Your task to perform on an android device: turn off javascript in the chrome app Image 0: 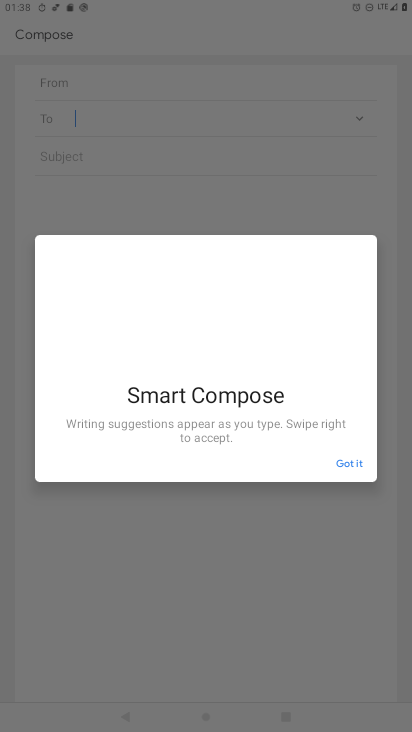
Step 0: click (134, 632)
Your task to perform on an android device: turn off javascript in the chrome app Image 1: 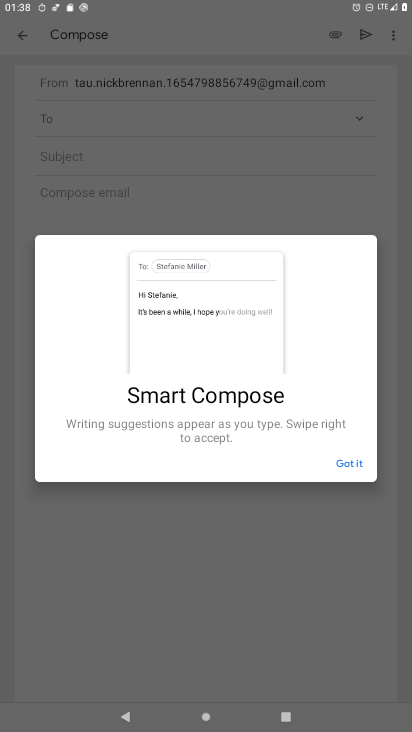
Step 1: press home button
Your task to perform on an android device: turn off javascript in the chrome app Image 2: 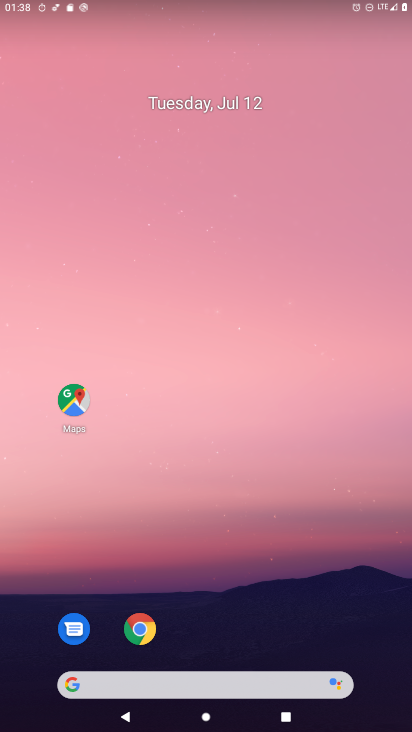
Step 2: click (131, 620)
Your task to perform on an android device: turn off javascript in the chrome app Image 3: 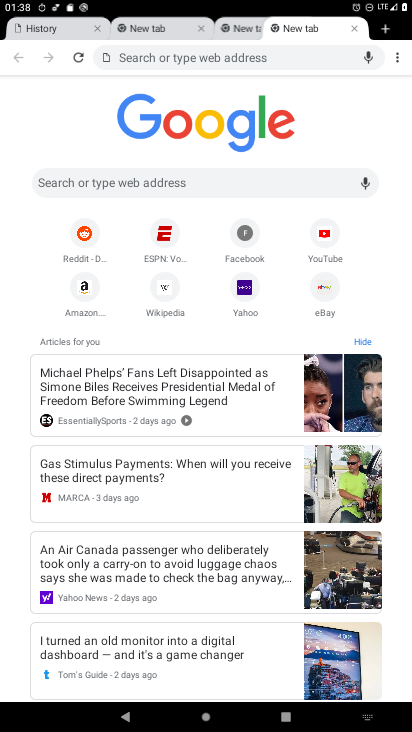
Step 3: click (397, 57)
Your task to perform on an android device: turn off javascript in the chrome app Image 4: 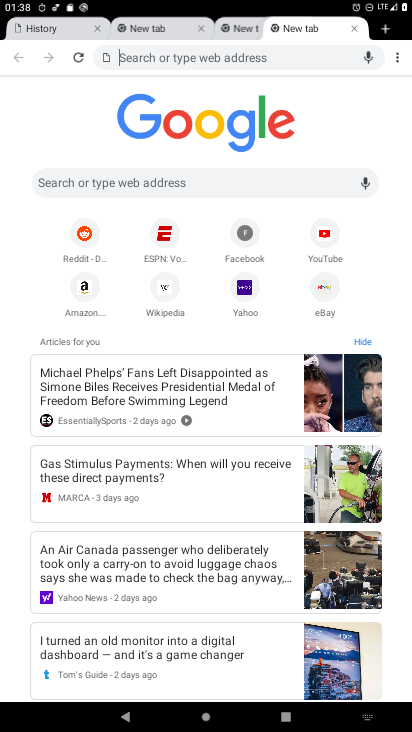
Step 4: click (395, 57)
Your task to perform on an android device: turn off javascript in the chrome app Image 5: 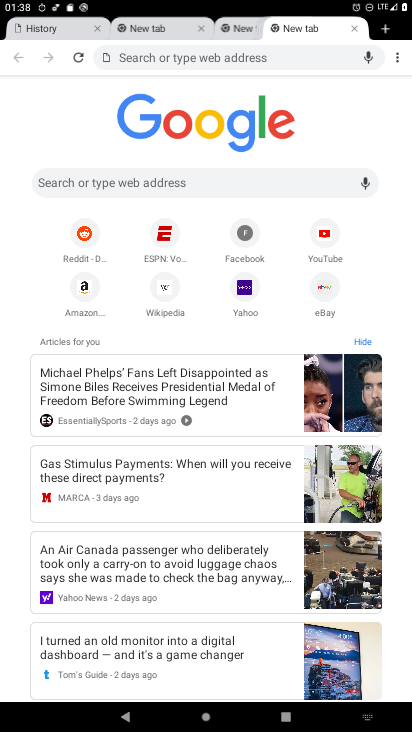
Step 5: click (398, 58)
Your task to perform on an android device: turn off javascript in the chrome app Image 6: 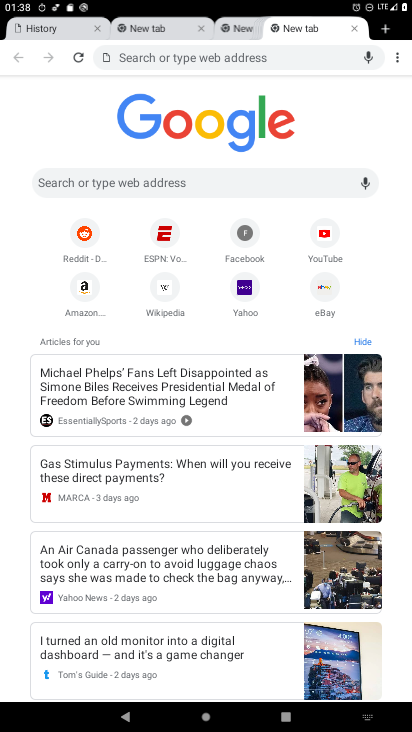
Step 6: click (395, 55)
Your task to perform on an android device: turn off javascript in the chrome app Image 7: 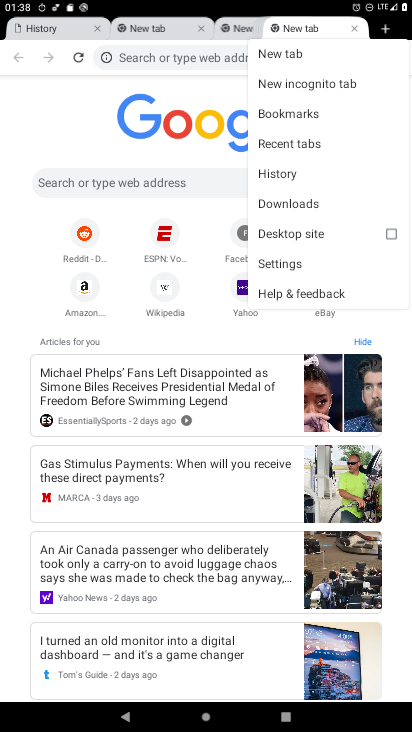
Step 7: click (280, 266)
Your task to perform on an android device: turn off javascript in the chrome app Image 8: 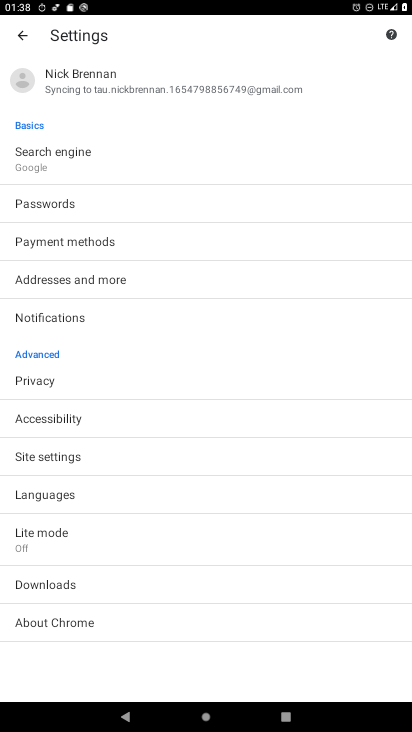
Step 8: click (44, 456)
Your task to perform on an android device: turn off javascript in the chrome app Image 9: 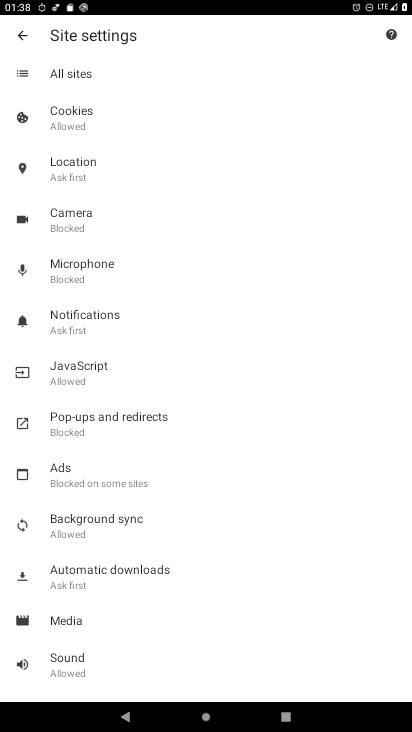
Step 9: click (76, 369)
Your task to perform on an android device: turn off javascript in the chrome app Image 10: 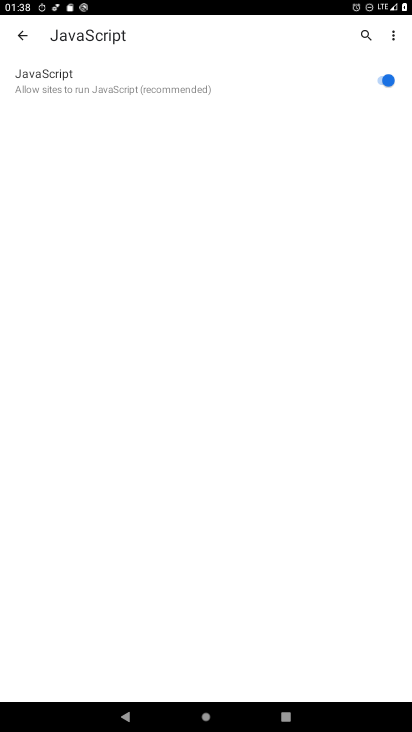
Step 10: click (392, 76)
Your task to perform on an android device: turn off javascript in the chrome app Image 11: 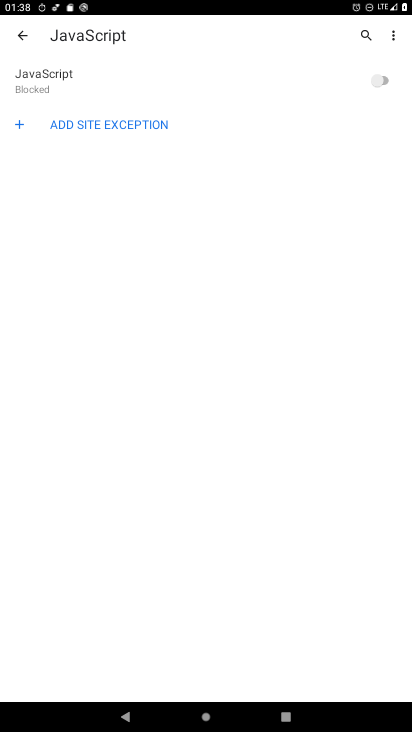
Step 11: task complete